Your task to perform on an android device: Open settings Image 0: 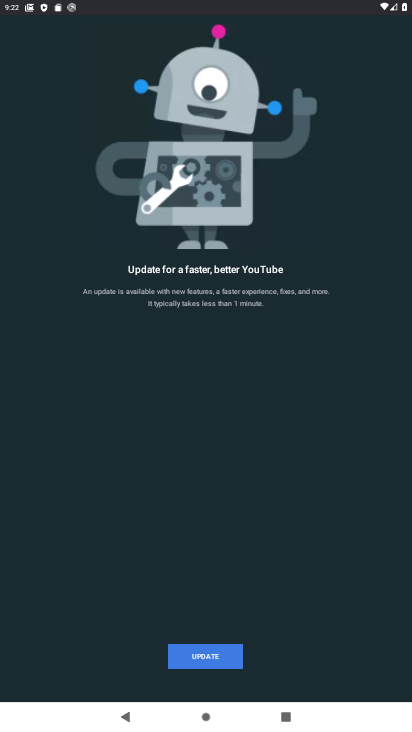
Step 0: press home button
Your task to perform on an android device: Open settings Image 1: 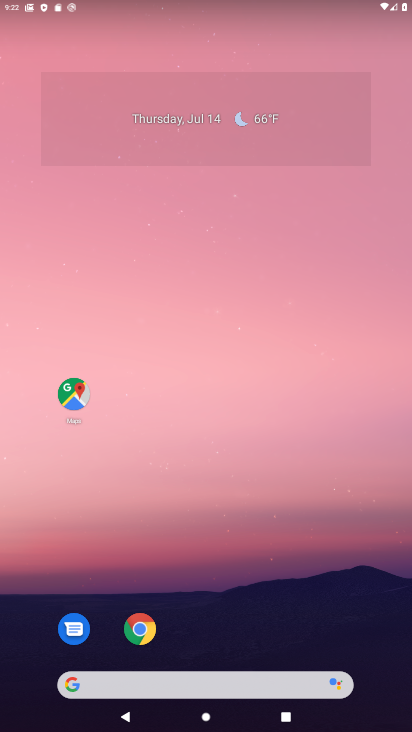
Step 1: drag from (287, 557) to (196, 10)
Your task to perform on an android device: Open settings Image 2: 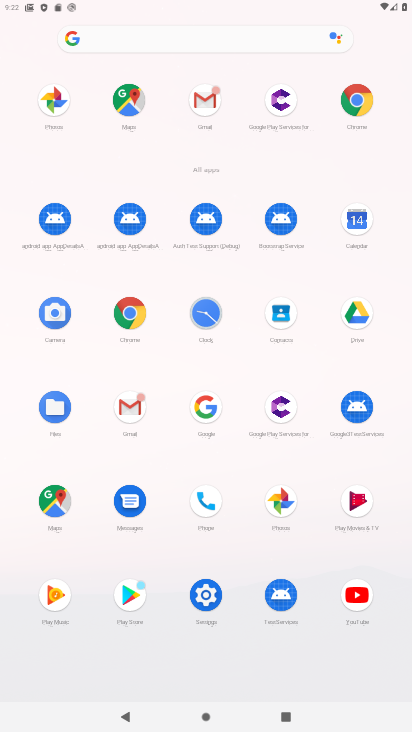
Step 2: click (212, 603)
Your task to perform on an android device: Open settings Image 3: 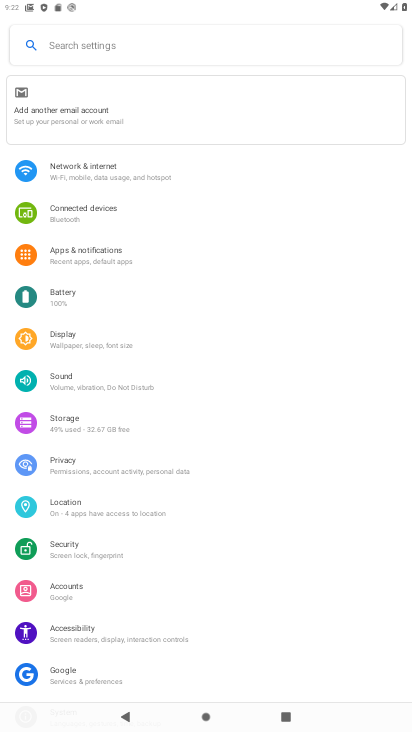
Step 3: task complete